Your task to perform on an android device: Go to Wikipedia Image 0: 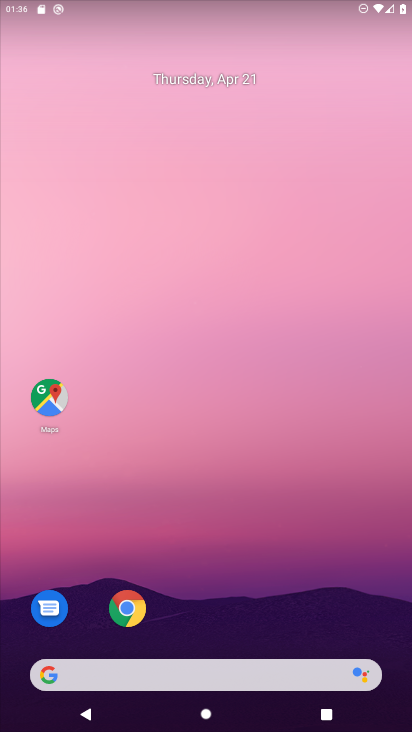
Step 0: drag from (261, 337) to (279, 181)
Your task to perform on an android device: Go to Wikipedia Image 1: 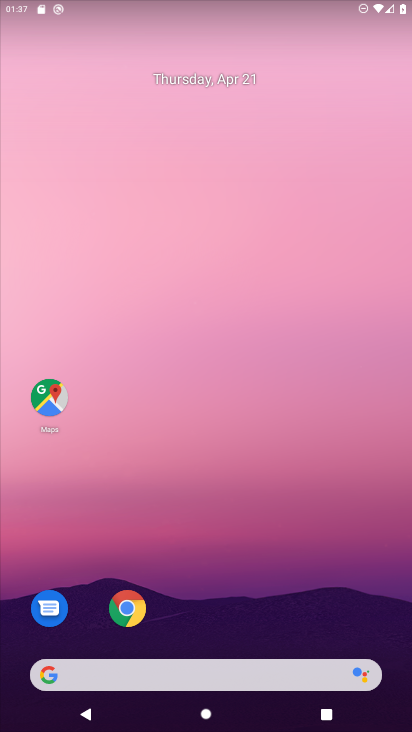
Step 1: drag from (250, 595) to (229, 153)
Your task to perform on an android device: Go to Wikipedia Image 2: 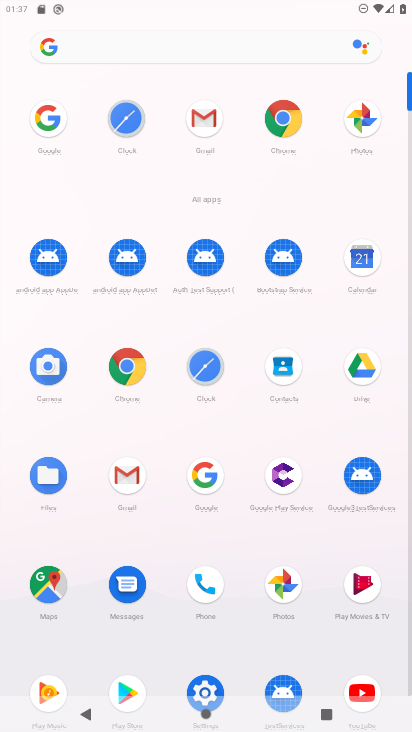
Step 2: click (128, 360)
Your task to perform on an android device: Go to Wikipedia Image 3: 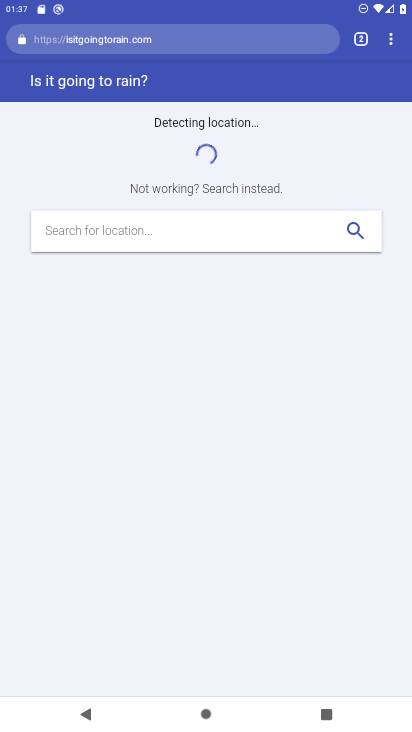
Step 3: click (383, 41)
Your task to perform on an android device: Go to Wikipedia Image 4: 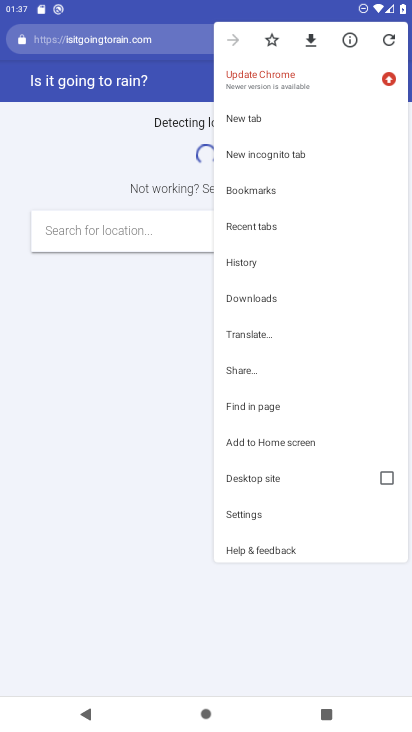
Step 4: click (281, 116)
Your task to perform on an android device: Go to Wikipedia Image 5: 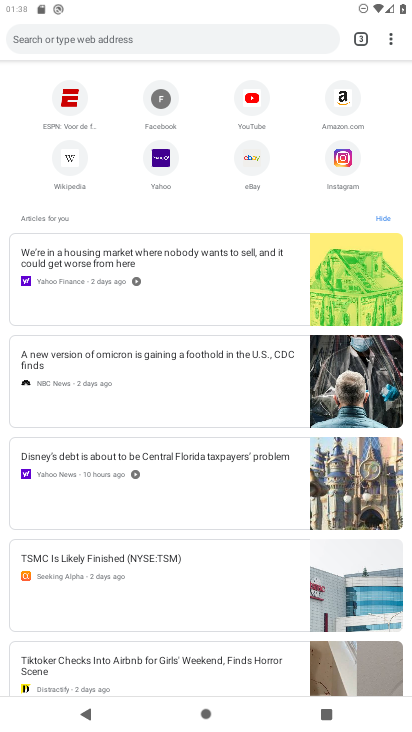
Step 5: click (66, 159)
Your task to perform on an android device: Go to Wikipedia Image 6: 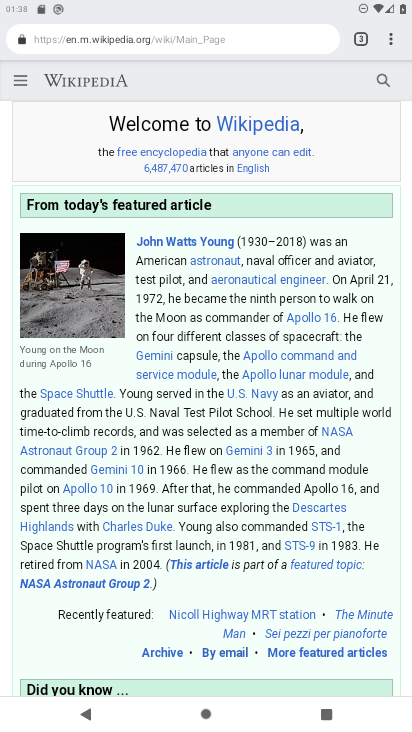
Step 6: task complete